Your task to perform on an android device: change your default location settings in chrome Image 0: 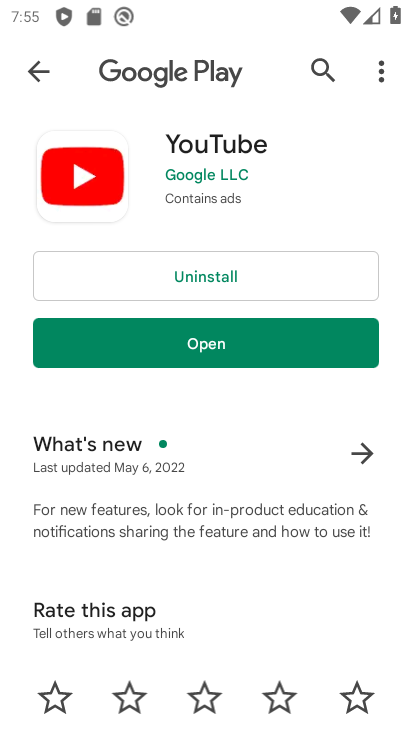
Step 0: press home button
Your task to perform on an android device: change your default location settings in chrome Image 1: 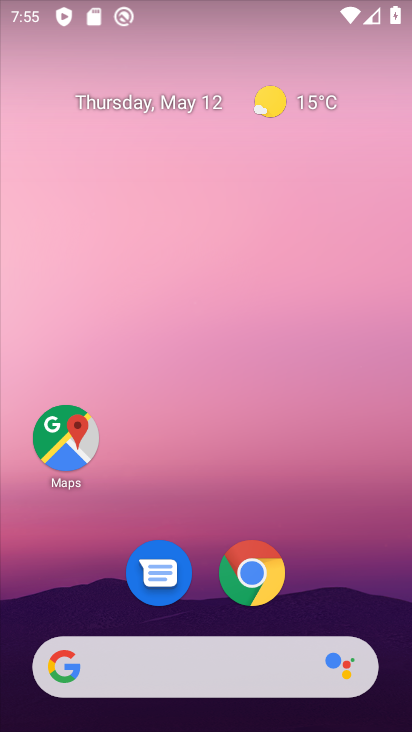
Step 1: click (257, 585)
Your task to perform on an android device: change your default location settings in chrome Image 2: 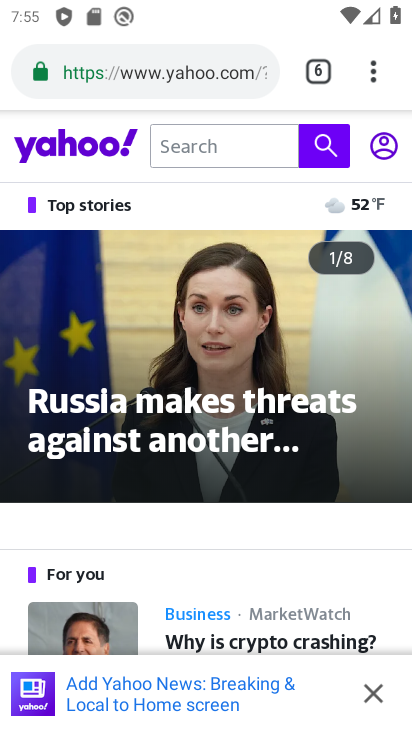
Step 2: click (366, 75)
Your task to perform on an android device: change your default location settings in chrome Image 3: 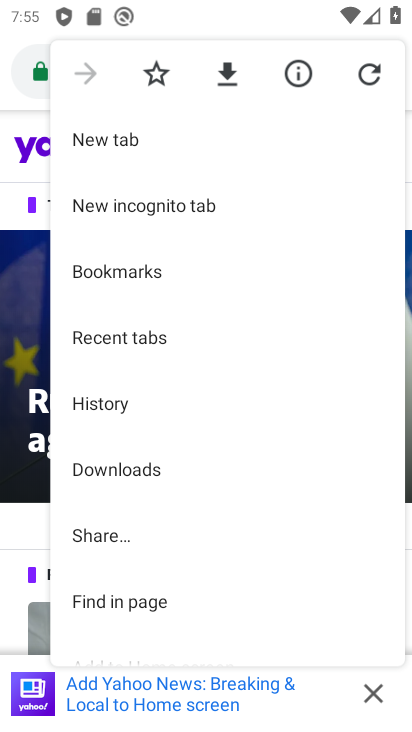
Step 3: drag from (207, 492) to (163, 163)
Your task to perform on an android device: change your default location settings in chrome Image 4: 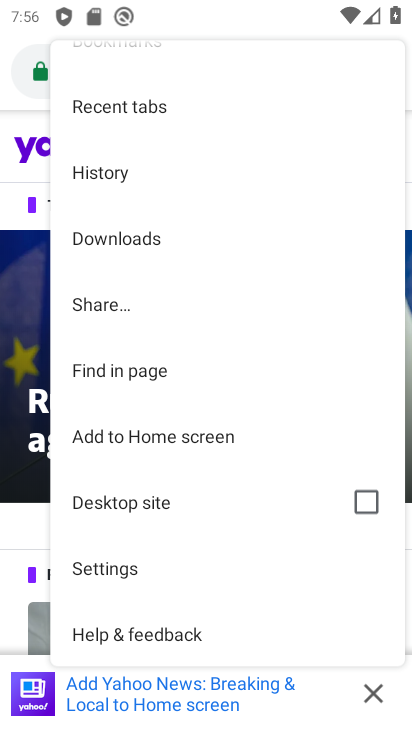
Step 4: click (113, 569)
Your task to perform on an android device: change your default location settings in chrome Image 5: 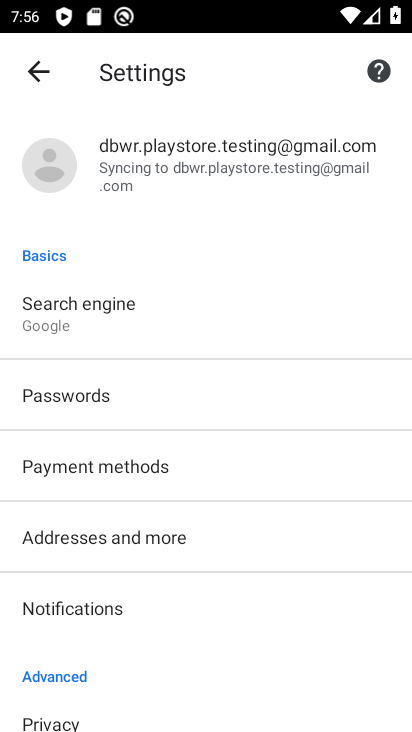
Step 5: drag from (202, 580) to (174, 322)
Your task to perform on an android device: change your default location settings in chrome Image 6: 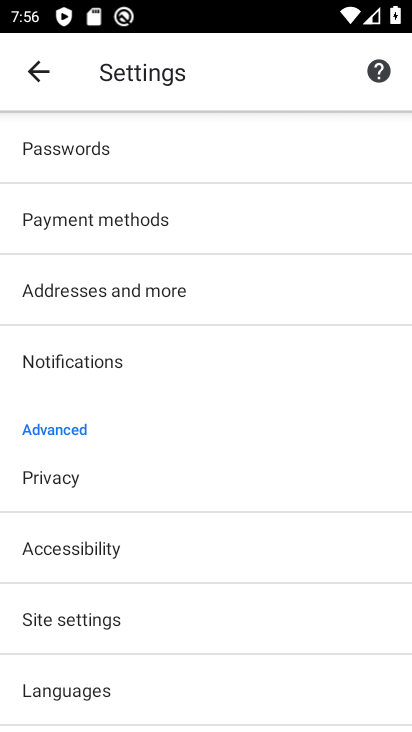
Step 6: click (74, 620)
Your task to perform on an android device: change your default location settings in chrome Image 7: 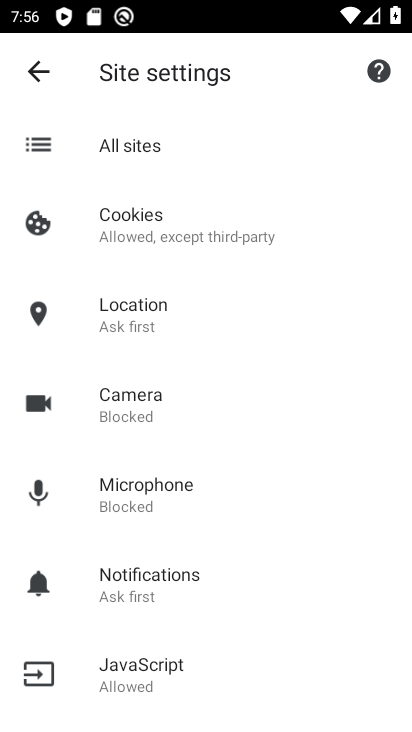
Step 7: click (128, 304)
Your task to perform on an android device: change your default location settings in chrome Image 8: 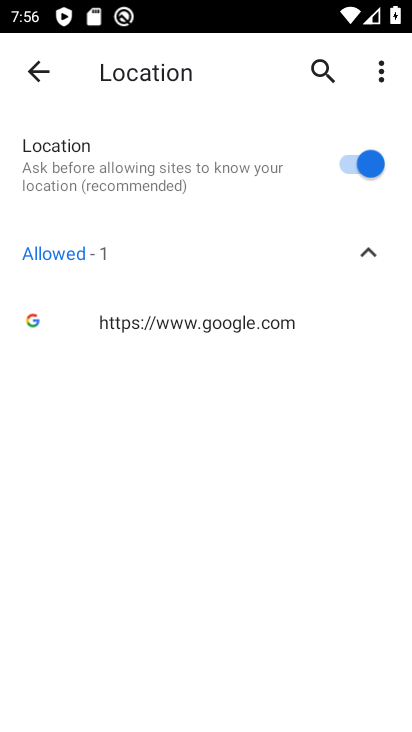
Step 8: click (362, 170)
Your task to perform on an android device: change your default location settings in chrome Image 9: 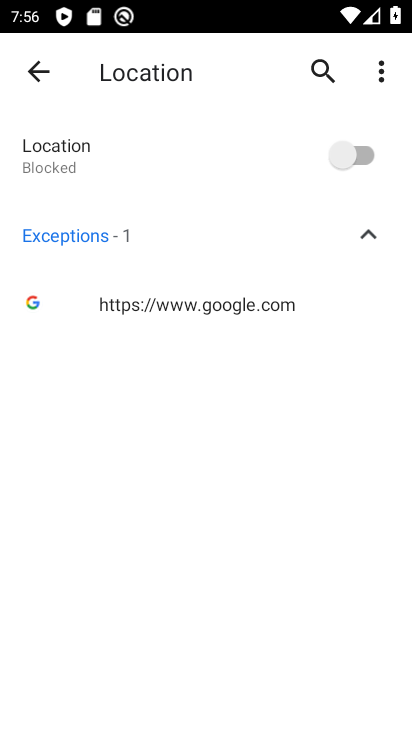
Step 9: task complete